Your task to perform on an android device: Go to calendar. Show me events next week Image 0: 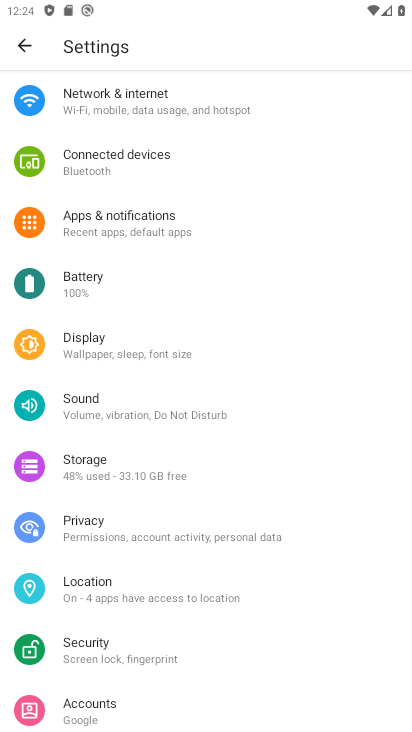
Step 0: press home button
Your task to perform on an android device: Go to calendar. Show me events next week Image 1: 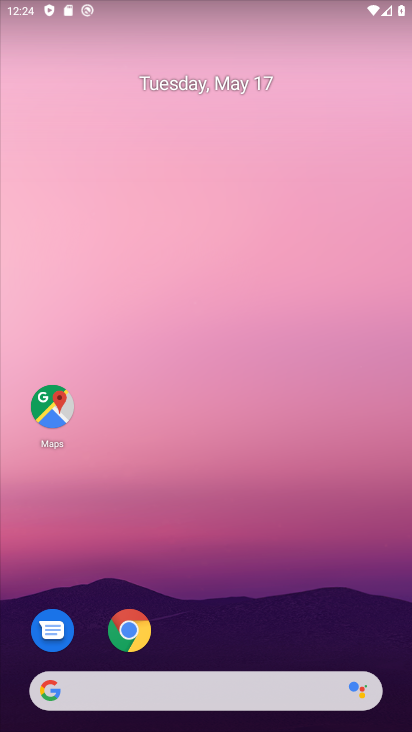
Step 1: drag from (253, 581) to (215, 102)
Your task to perform on an android device: Go to calendar. Show me events next week Image 2: 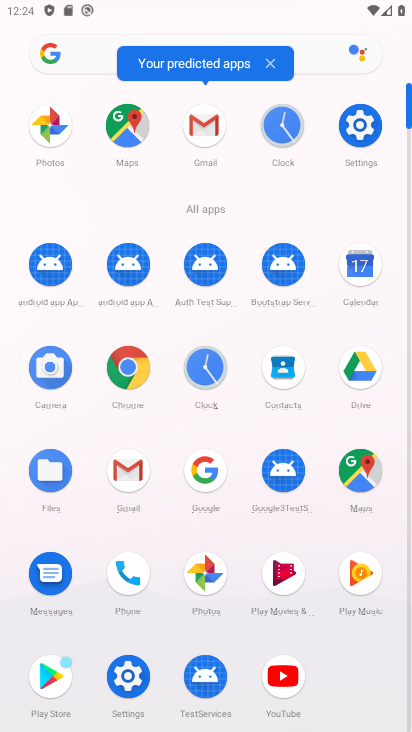
Step 2: click (365, 274)
Your task to perform on an android device: Go to calendar. Show me events next week Image 3: 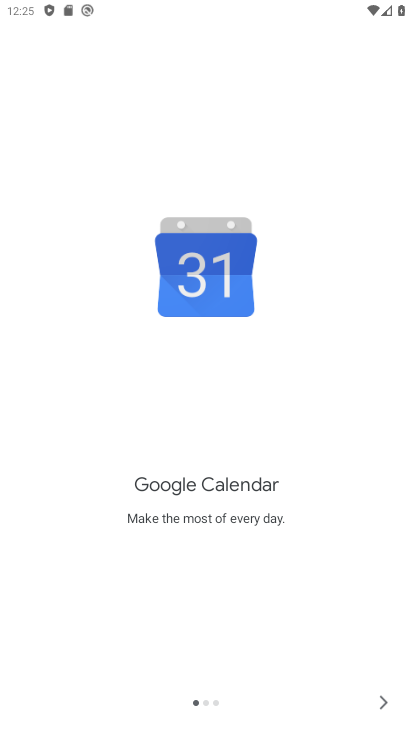
Step 3: click (380, 707)
Your task to perform on an android device: Go to calendar. Show me events next week Image 4: 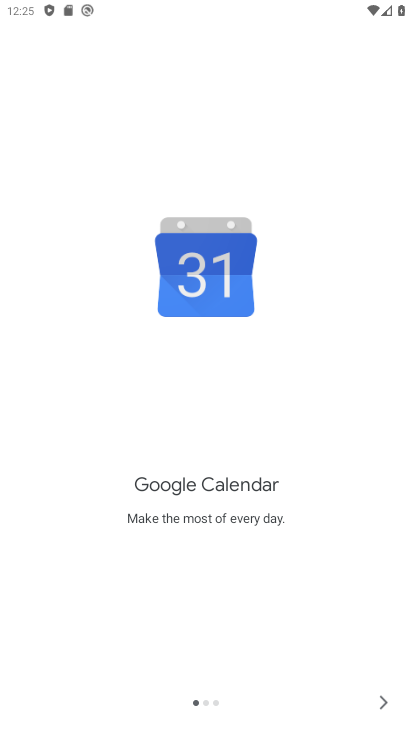
Step 4: click (380, 707)
Your task to perform on an android device: Go to calendar. Show me events next week Image 5: 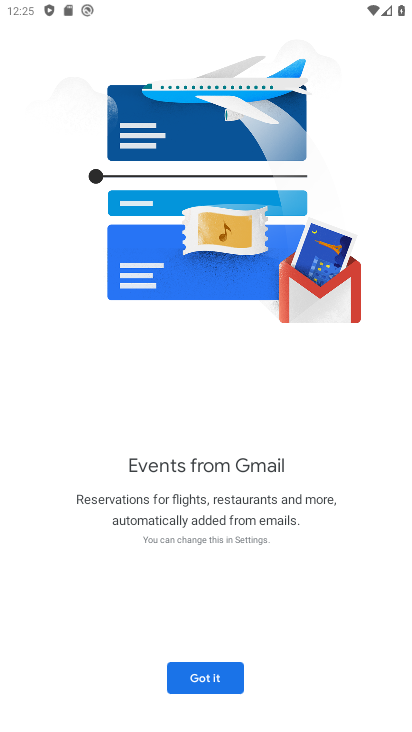
Step 5: click (380, 707)
Your task to perform on an android device: Go to calendar. Show me events next week Image 6: 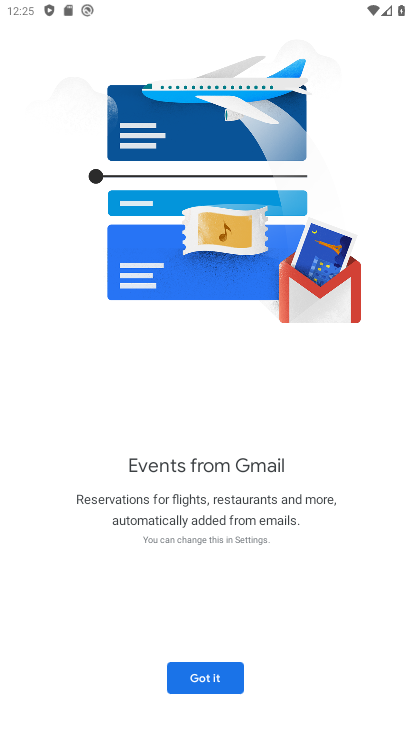
Step 6: click (380, 707)
Your task to perform on an android device: Go to calendar. Show me events next week Image 7: 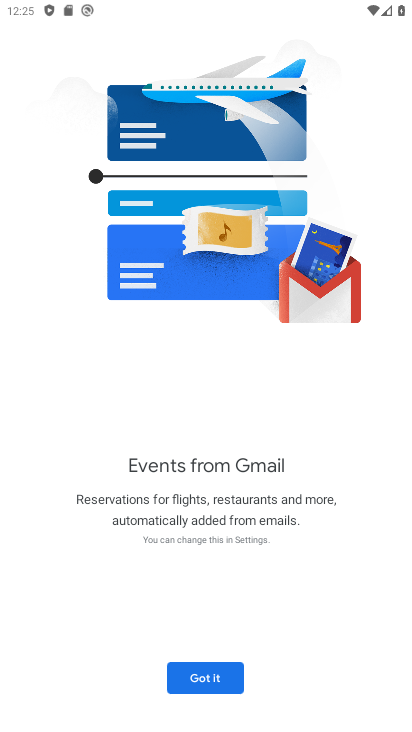
Step 7: click (223, 684)
Your task to perform on an android device: Go to calendar. Show me events next week Image 8: 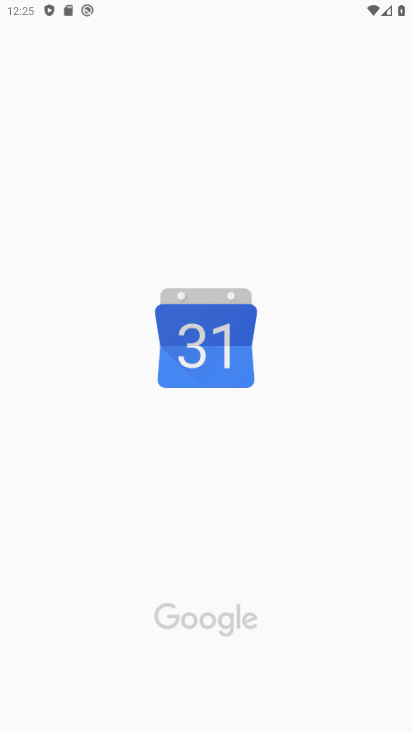
Step 8: task complete